Your task to perform on an android device: set default search engine in the chrome app Image 0: 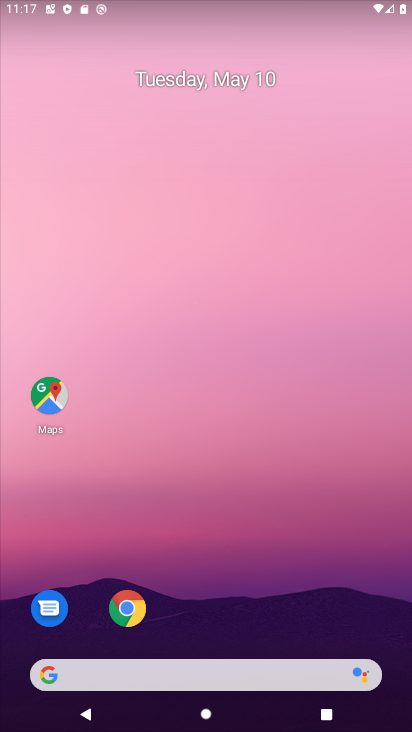
Step 0: drag from (216, 575) to (224, 68)
Your task to perform on an android device: set default search engine in the chrome app Image 1: 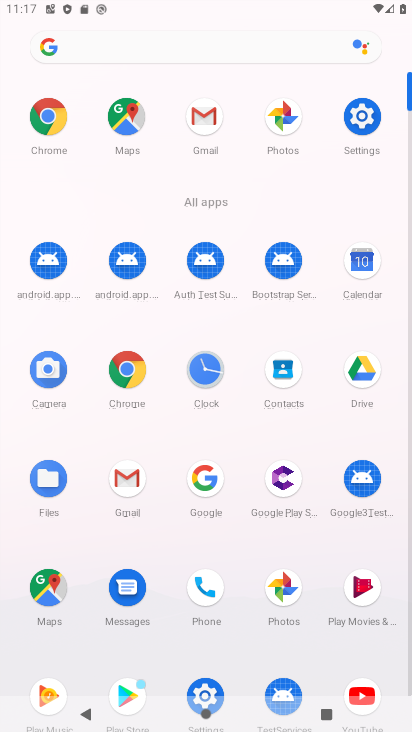
Step 1: click (56, 117)
Your task to perform on an android device: set default search engine in the chrome app Image 2: 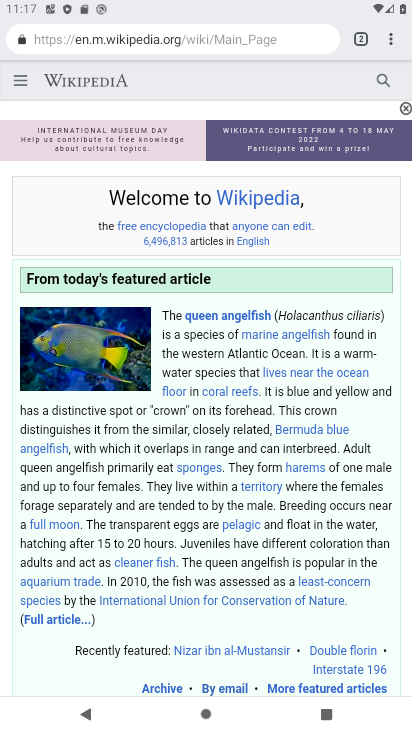
Step 2: click (388, 39)
Your task to perform on an android device: set default search engine in the chrome app Image 3: 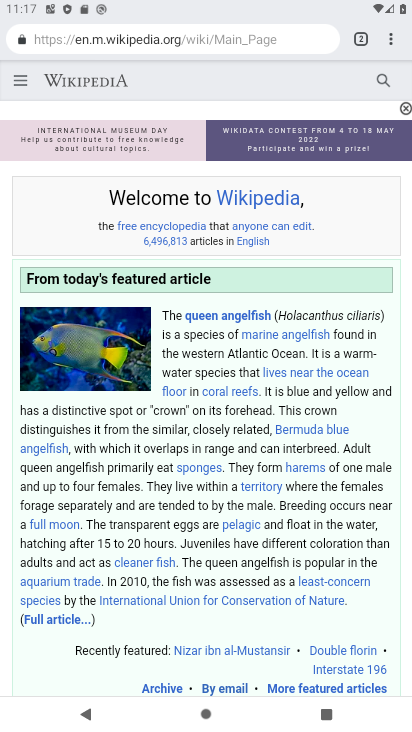
Step 3: click (388, 35)
Your task to perform on an android device: set default search engine in the chrome app Image 4: 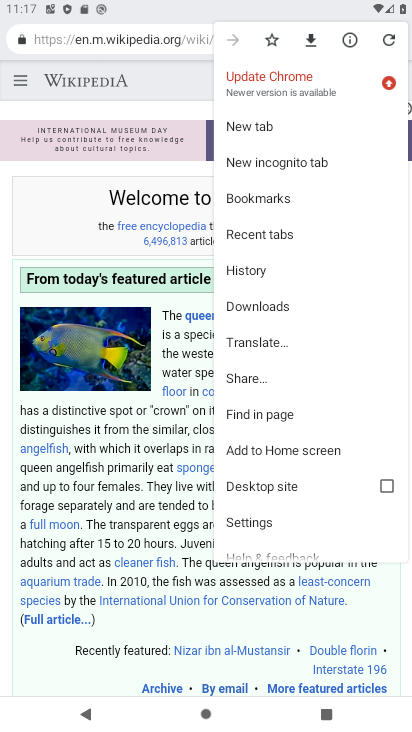
Step 4: click (279, 518)
Your task to perform on an android device: set default search engine in the chrome app Image 5: 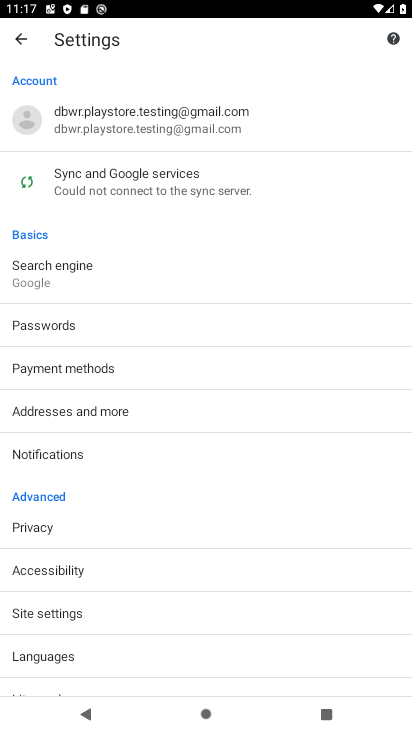
Step 5: click (167, 272)
Your task to perform on an android device: set default search engine in the chrome app Image 6: 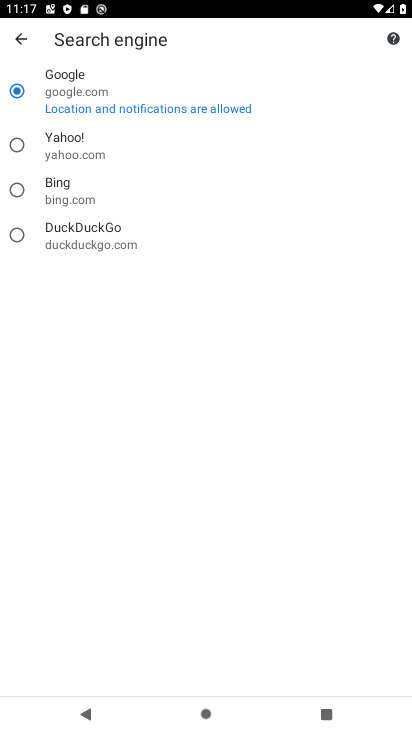
Step 6: task complete